Your task to perform on an android device: Open calendar and show me the first week of next month Image 0: 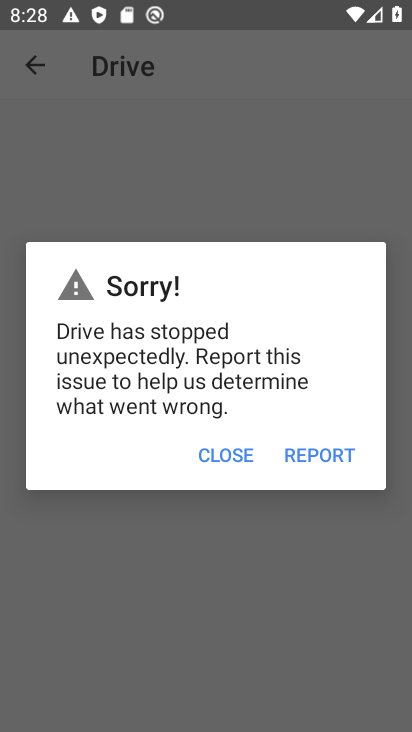
Step 0: click (230, 455)
Your task to perform on an android device: Open calendar and show me the first week of next month Image 1: 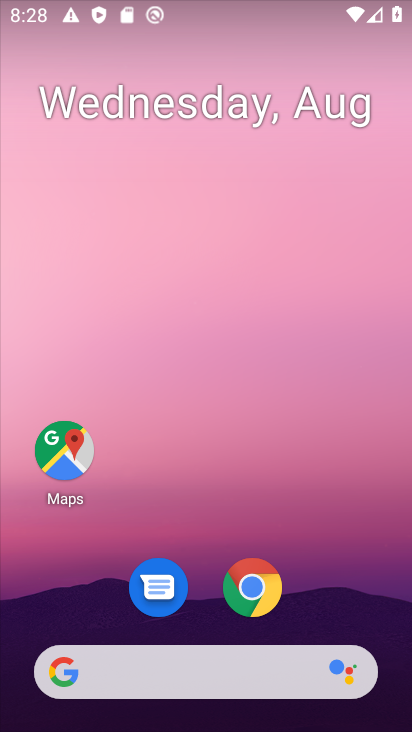
Step 1: drag from (167, 556) to (167, 17)
Your task to perform on an android device: Open calendar and show me the first week of next month Image 2: 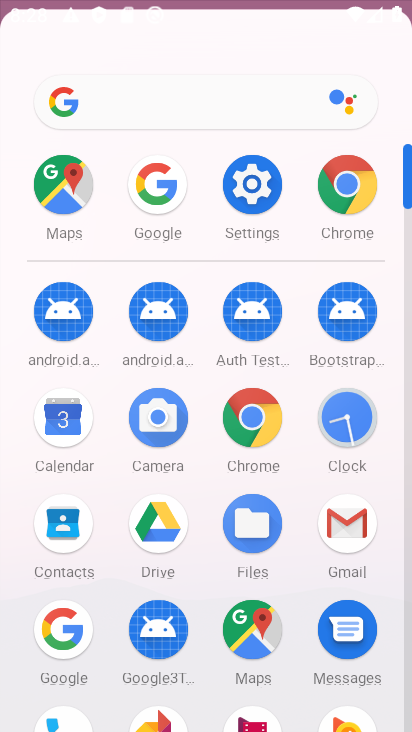
Step 2: drag from (224, 479) to (220, 80)
Your task to perform on an android device: Open calendar and show me the first week of next month Image 3: 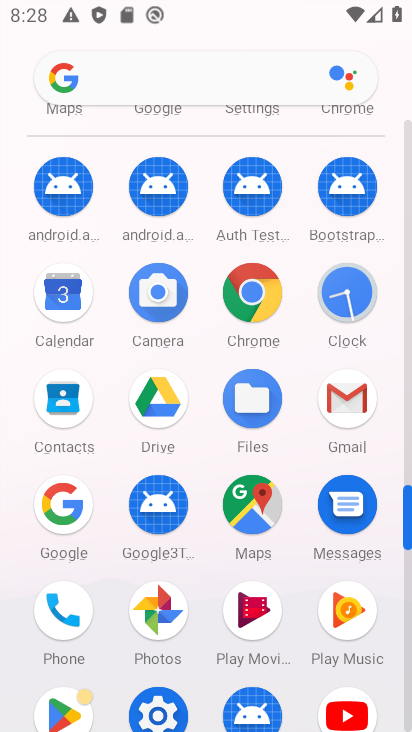
Step 3: drag from (237, 600) to (215, 162)
Your task to perform on an android device: Open calendar and show me the first week of next month Image 4: 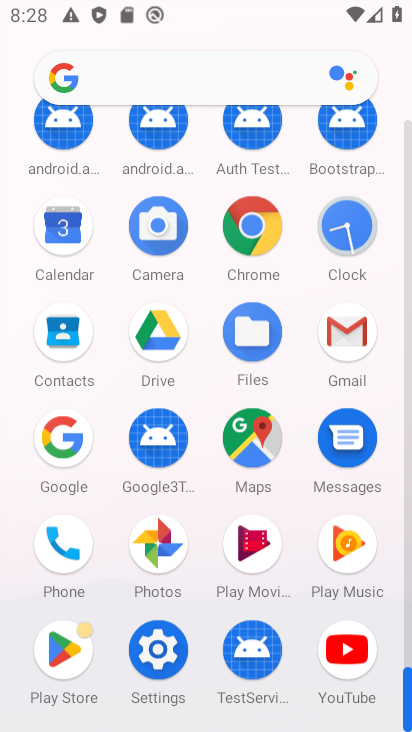
Step 4: drag from (248, 557) to (232, 93)
Your task to perform on an android device: Open calendar and show me the first week of next month Image 5: 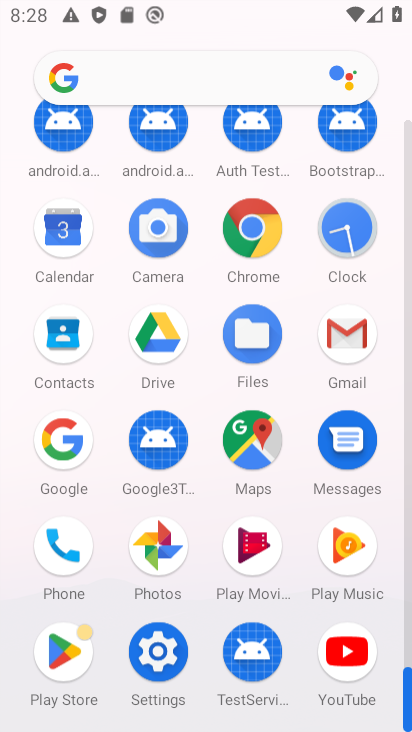
Step 5: drag from (266, 500) to (255, 197)
Your task to perform on an android device: Open calendar and show me the first week of next month Image 6: 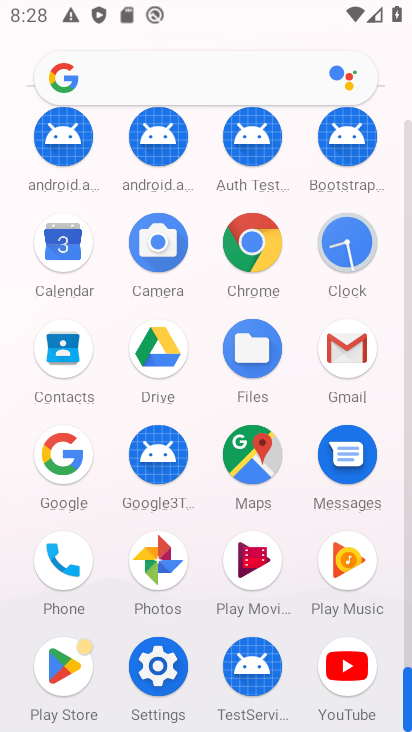
Step 6: click (68, 240)
Your task to perform on an android device: Open calendar and show me the first week of next month Image 7: 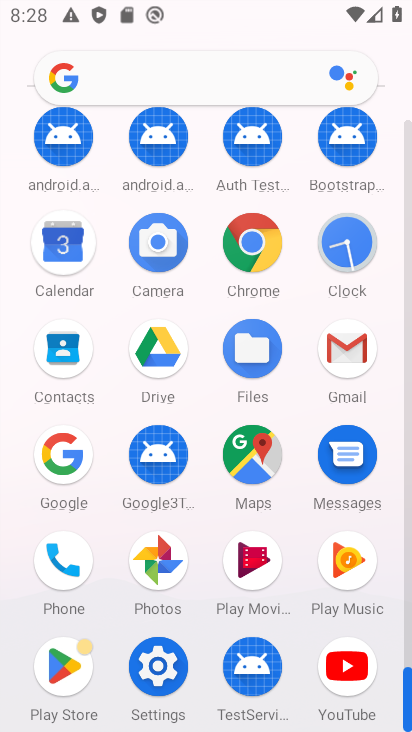
Step 7: click (68, 240)
Your task to perform on an android device: Open calendar and show me the first week of next month Image 8: 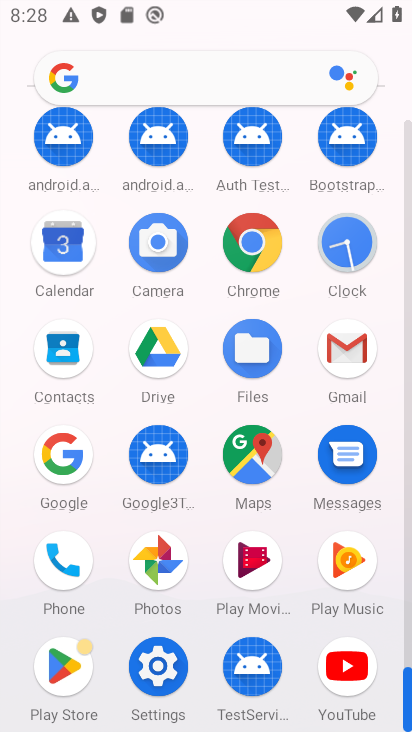
Step 8: click (68, 242)
Your task to perform on an android device: Open calendar and show me the first week of next month Image 9: 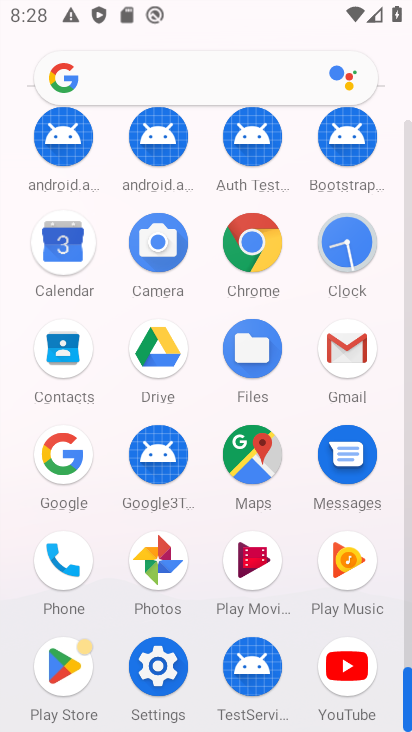
Step 9: click (68, 242)
Your task to perform on an android device: Open calendar and show me the first week of next month Image 10: 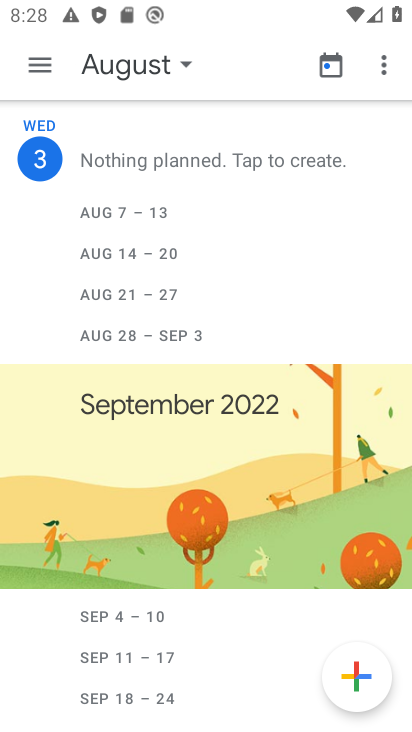
Step 10: click (68, 244)
Your task to perform on an android device: Open calendar and show me the first week of next month Image 11: 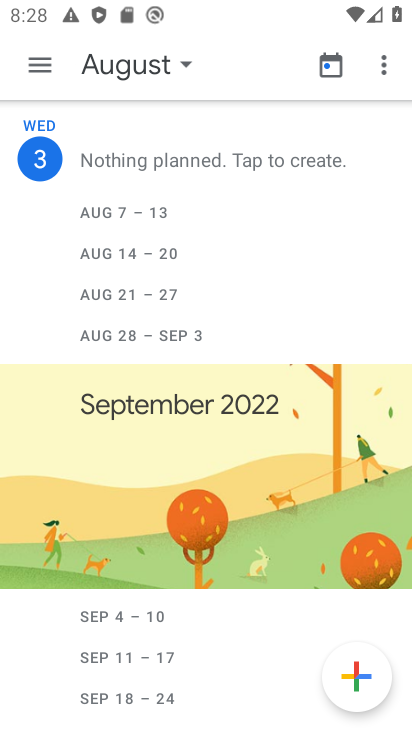
Step 11: click (69, 245)
Your task to perform on an android device: Open calendar and show me the first week of next month Image 12: 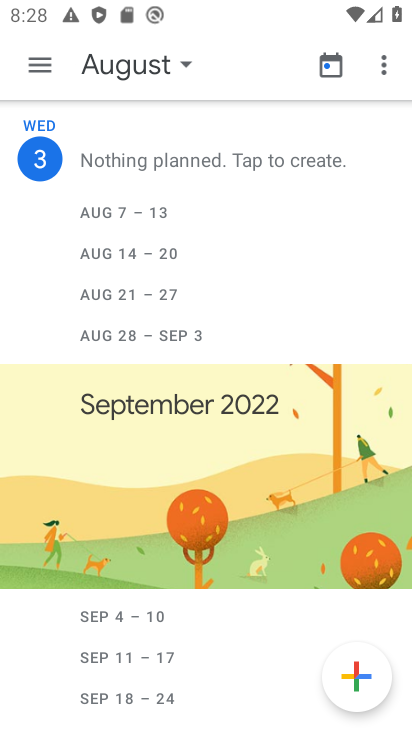
Step 12: click (182, 60)
Your task to perform on an android device: Open calendar and show me the first week of next month Image 13: 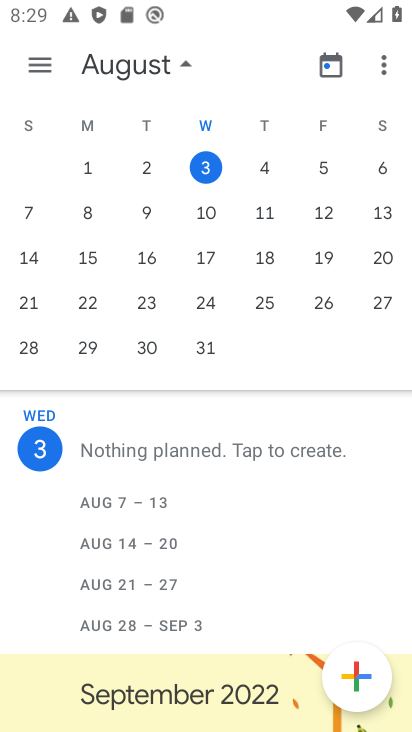
Step 13: click (202, 214)
Your task to perform on an android device: Open calendar and show me the first week of next month Image 14: 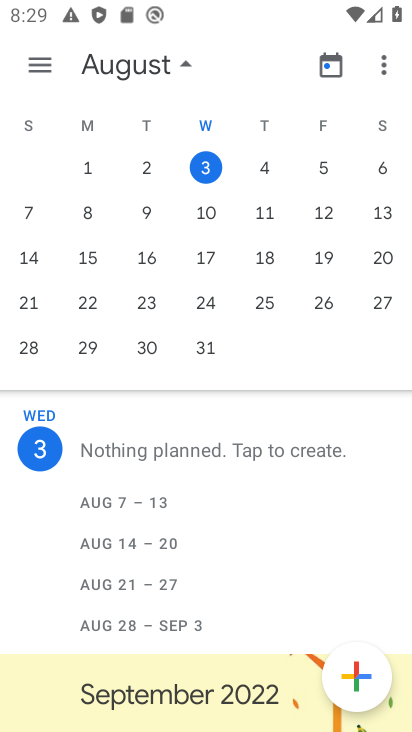
Step 14: click (202, 214)
Your task to perform on an android device: Open calendar and show me the first week of next month Image 15: 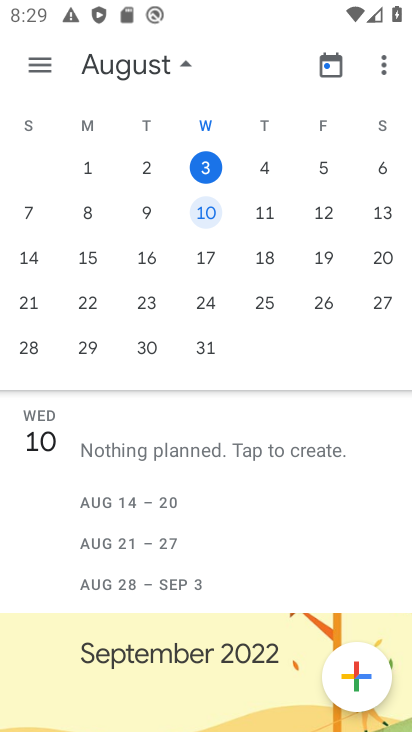
Step 15: click (200, 213)
Your task to perform on an android device: Open calendar and show me the first week of next month Image 16: 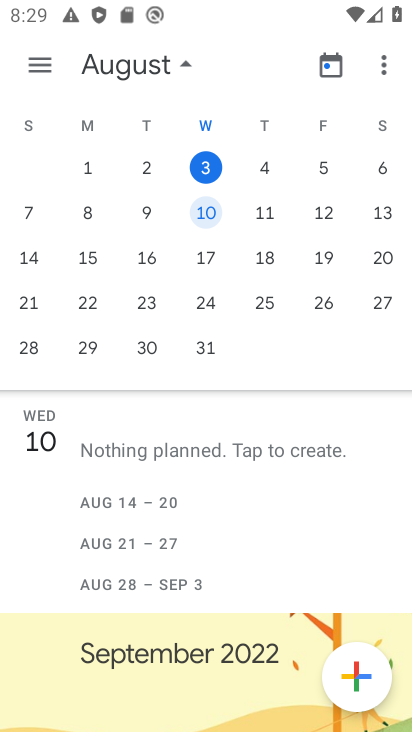
Step 16: click (200, 213)
Your task to perform on an android device: Open calendar and show me the first week of next month Image 17: 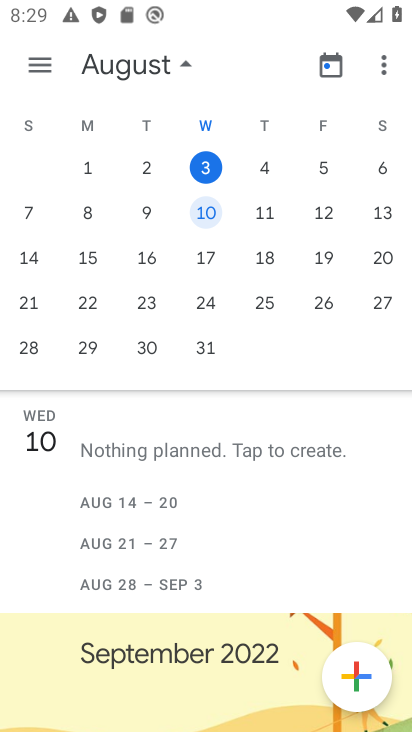
Step 17: click (200, 214)
Your task to perform on an android device: Open calendar and show me the first week of next month Image 18: 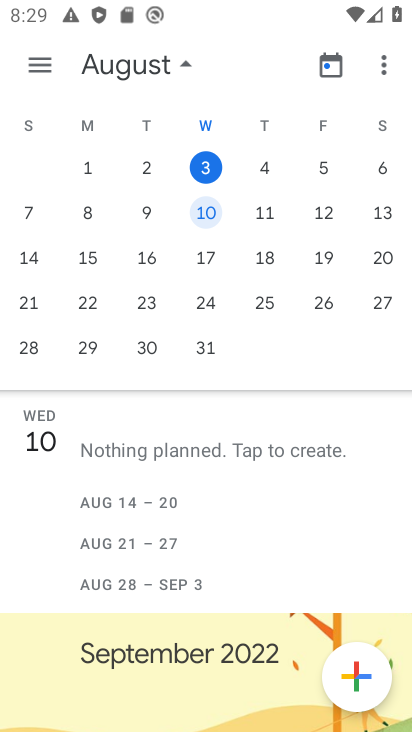
Step 18: click (199, 215)
Your task to perform on an android device: Open calendar and show me the first week of next month Image 19: 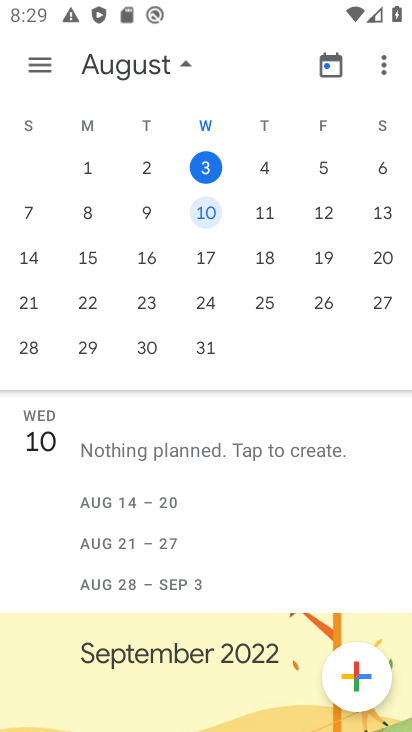
Step 19: click (198, 214)
Your task to perform on an android device: Open calendar and show me the first week of next month Image 20: 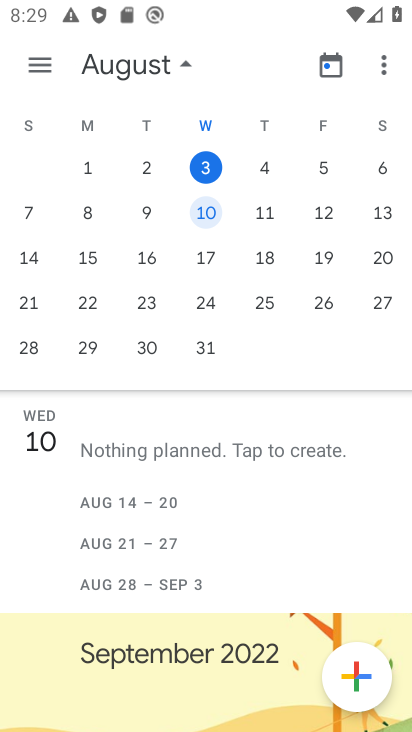
Step 20: task complete